Your task to perform on an android device: turn on airplane mode Image 0: 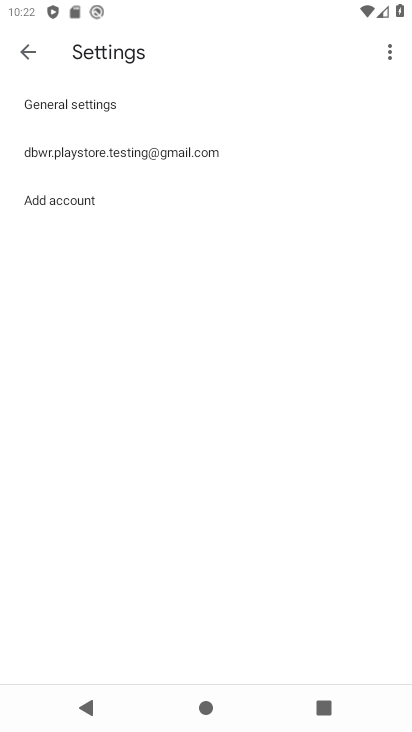
Step 0: press home button
Your task to perform on an android device: turn on airplane mode Image 1: 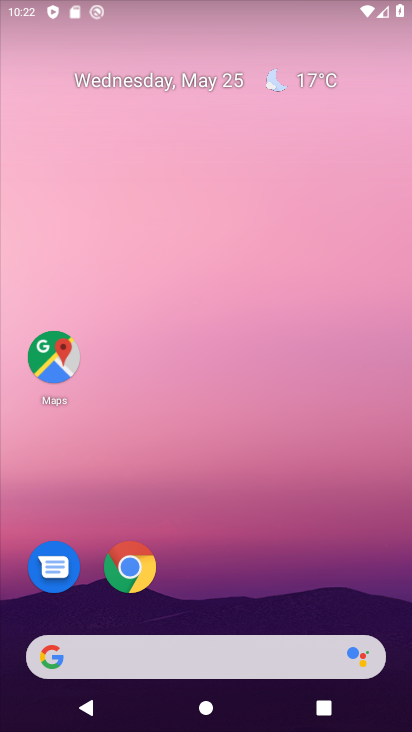
Step 1: drag from (369, 607) to (259, 9)
Your task to perform on an android device: turn on airplane mode Image 2: 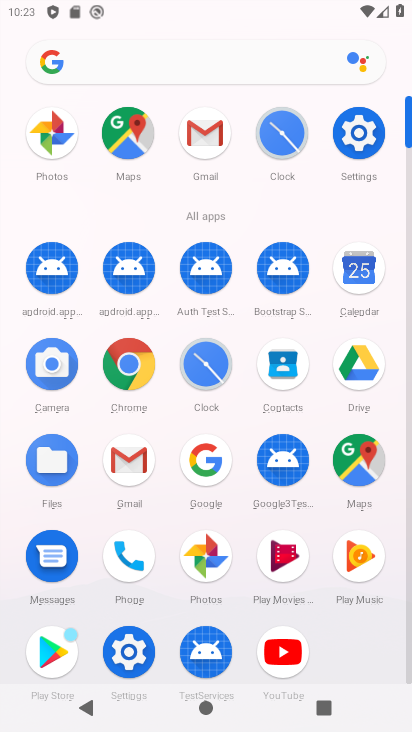
Step 2: press home button
Your task to perform on an android device: turn on airplane mode Image 3: 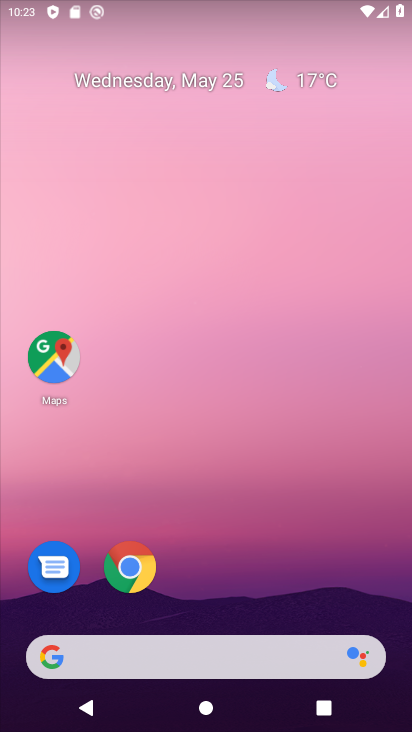
Step 3: drag from (250, 1) to (270, 546)
Your task to perform on an android device: turn on airplane mode Image 4: 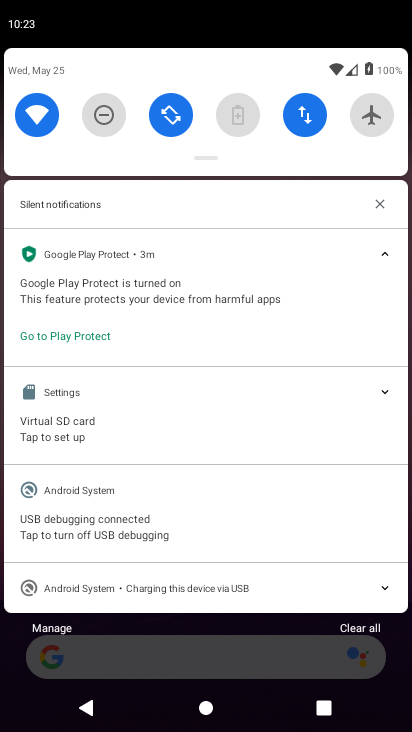
Step 4: click (375, 119)
Your task to perform on an android device: turn on airplane mode Image 5: 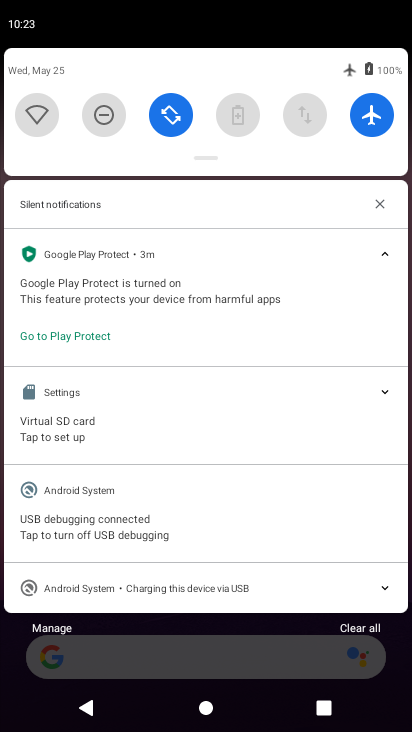
Step 5: task complete